Your task to perform on an android device: open device folders in google photos Image 0: 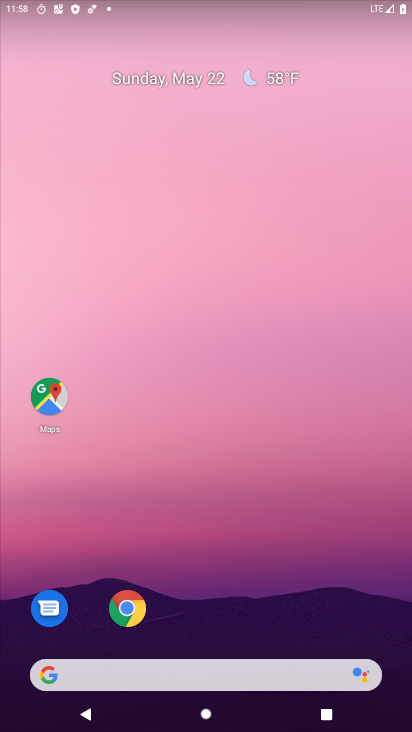
Step 0: drag from (266, 632) to (203, 76)
Your task to perform on an android device: open device folders in google photos Image 1: 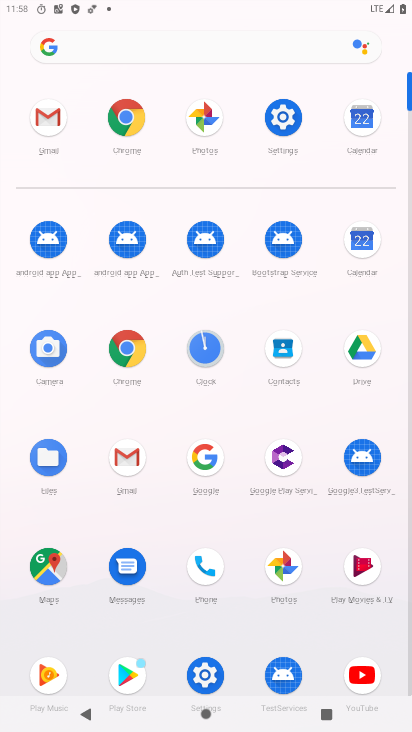
Step 1: click (293, 561)
Your task to perform on an android device: open device folders in google photos Image 2: 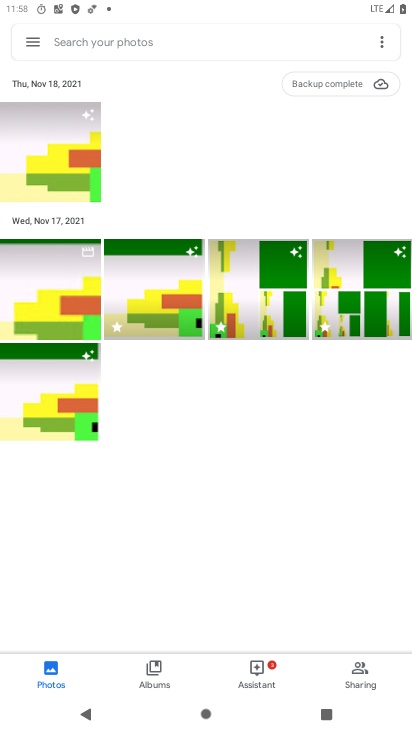
Step 2: click (33, 33)
Your task to perform on an android device: open device folders in google photos Image 3: 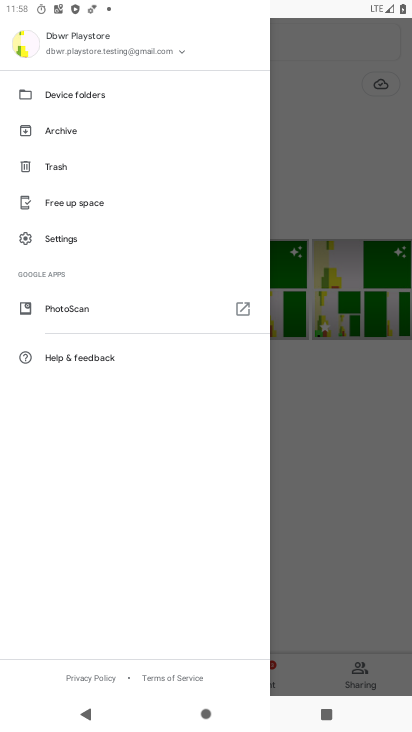
Step 3: click (90, 96)
Your task to perform on an android device: open device folders in google photos Image 4: 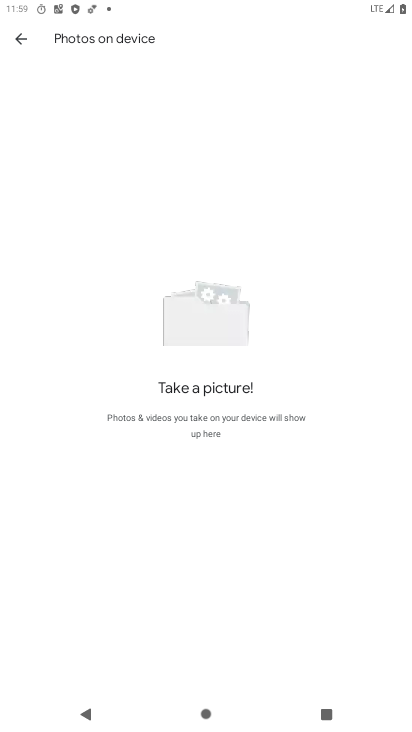
Step 4: task complete